Your task to perform on an android device: turn on bluetooth scan Image 0: 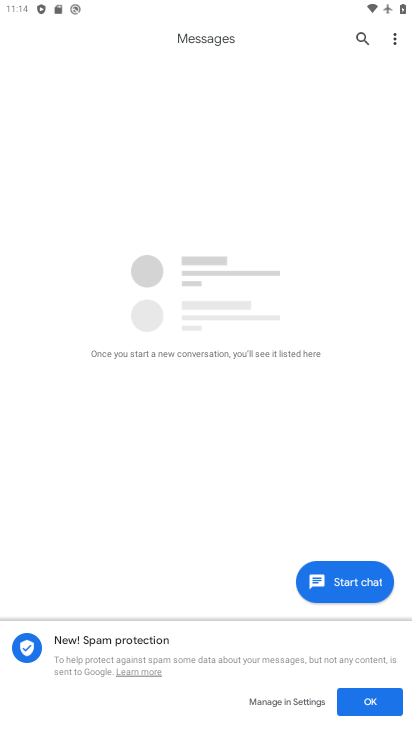
Step 0: press home button
Your task to perform on an android device: turn on bluetooth scan Image 1: 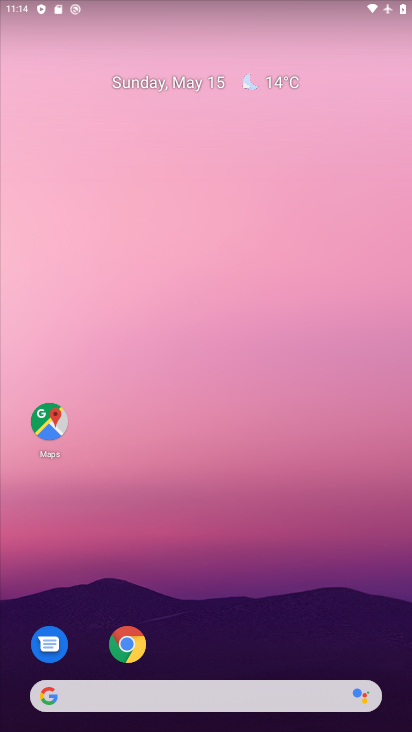
Step 1: drag from (231, 633) to (118, 83)
Your task to perform on an android device: turn on bluetooth scan Image 2: 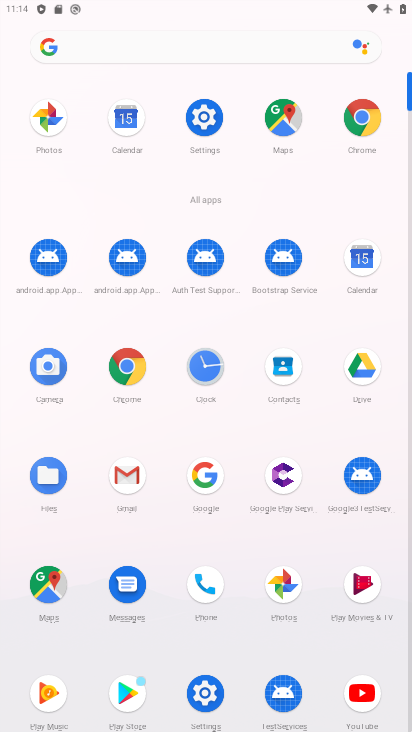
Step 2: click (221, 678)
Your task to perform on an android device: turn on bluetooth scan Image 3: 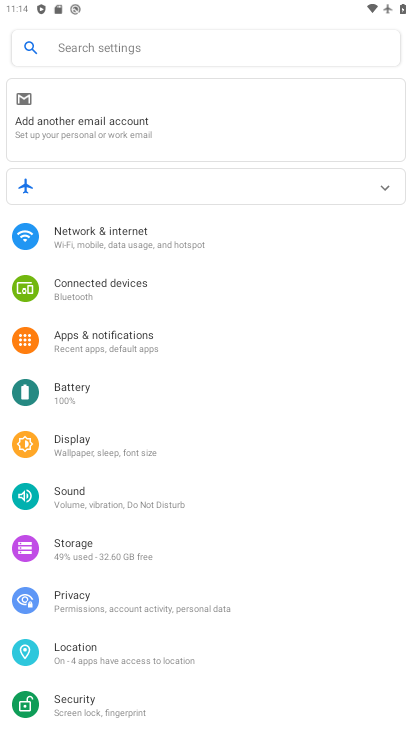
Step 3: click (137, 651)
Your task to perform on an android device: turn on bluetooth scan Image 4: 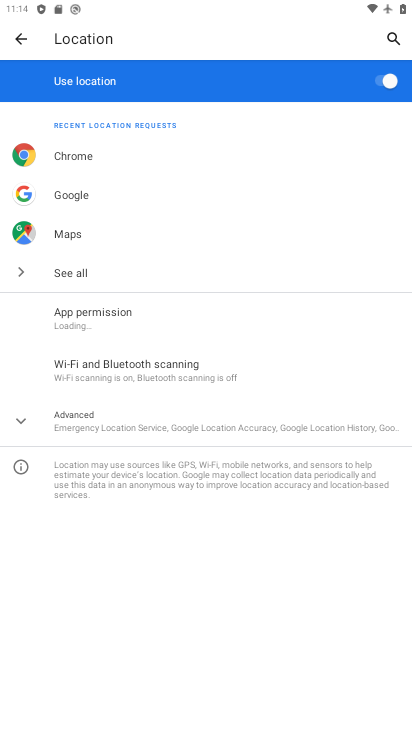
Step 4: click (181, 372)
Your task to perform on an android device: turn on bluetooth scan Image 5: 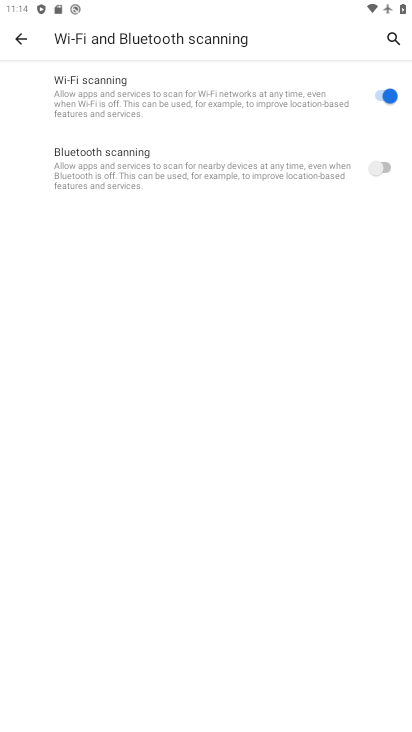
Step 5: click (381, 164)
Your task to perform on an android device: turn on bluetooth scan Image 6: 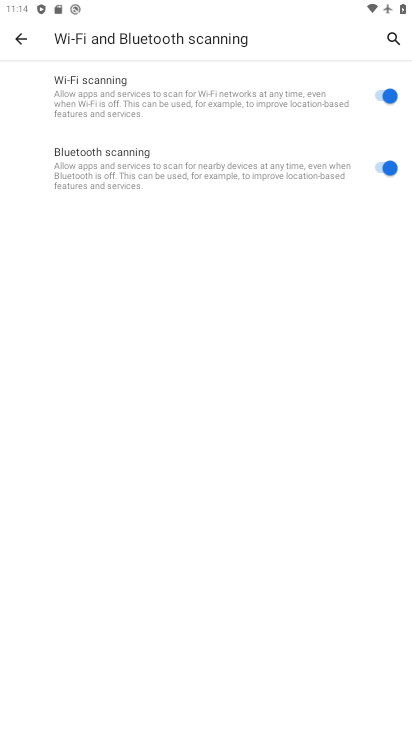
Step 6: task complete